Your task to perform on an android device: turn on translation in the chrome app Image 0: 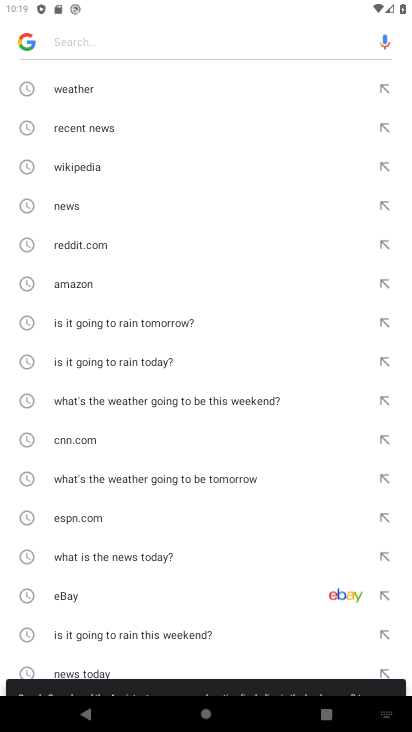
Step 0: press back button
Your task to perform on an android device: turn on translation in the chrome app Image 1: 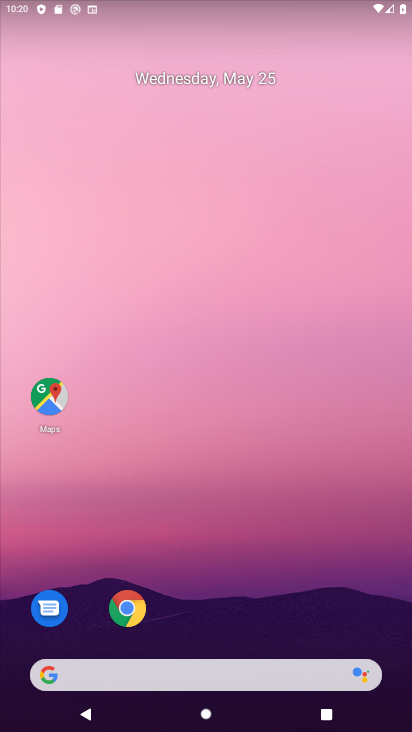
Step 1: click (127, 607)
Your task to perform on an android device: turn on translation in the chrome app Image 2: 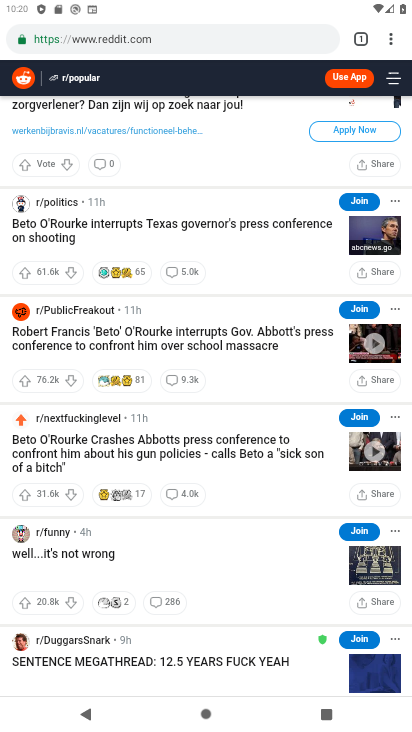
Step 2: click (391, 38)
Your task to perform on an android device: turn on translation in the chrome app Image 3: 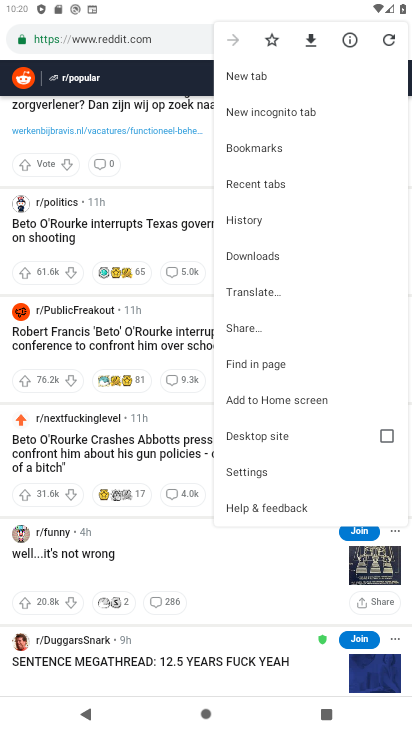
Step 3: click (257, 472)
Your task to perform on an android device: turn on translation in the chrome app Image 4: 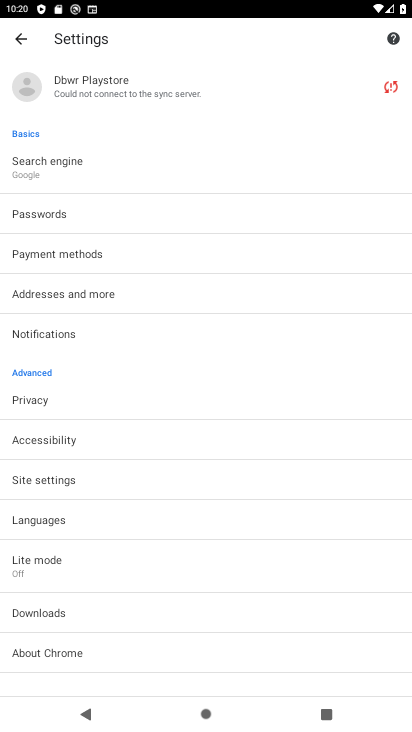
Step 4: click (47, 521)
Your task to perform on an android device: turn on translation in the chrome app Image 5: 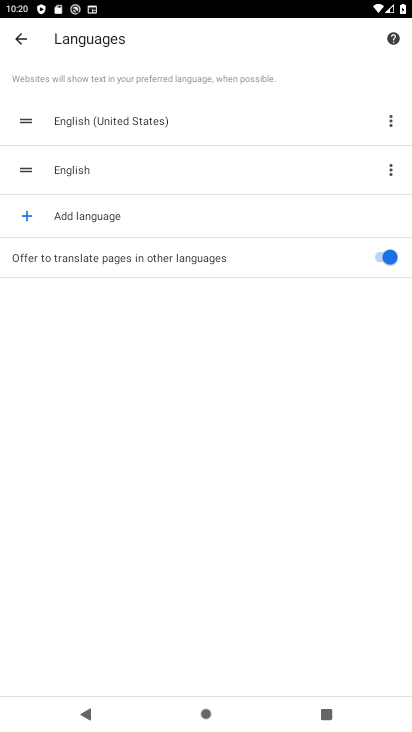
Step 5: task complete